Your task to perform on an android device: see sites visited before in the chrome app Image 0: 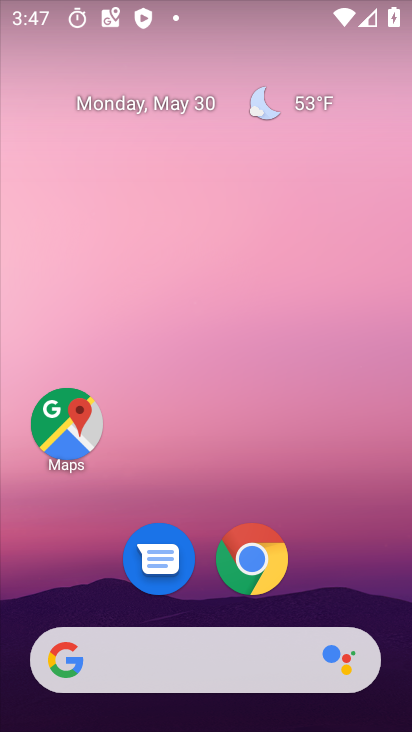
Step 0: click (259, 551)
Your task to perform on an android device: see sites visited before in the chrome app Image 1: 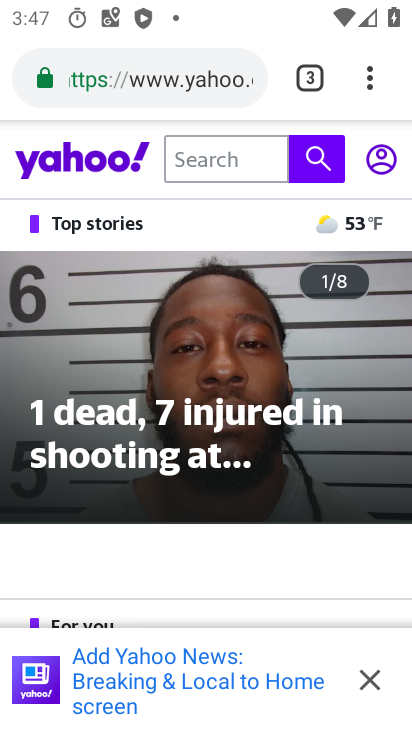
Step 1: click (372, 81)
Your task to perform on an android device: see sites visited before in the chrome app Image 2: 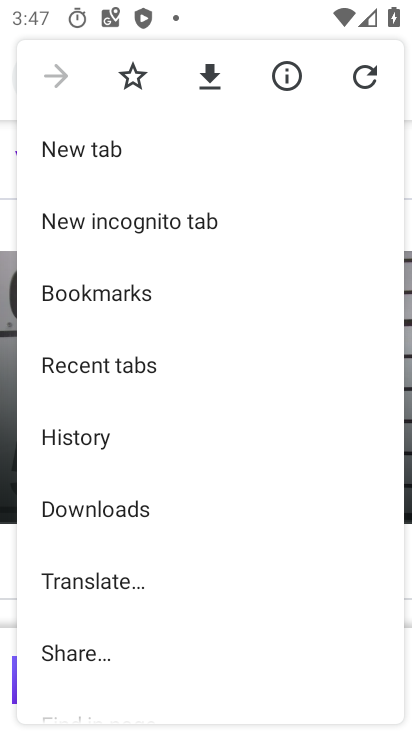
Step 2: drag from (103, 637) to (123, 282)
Your task to perform on an android device: see sites visited before in the chrome app Image 3: 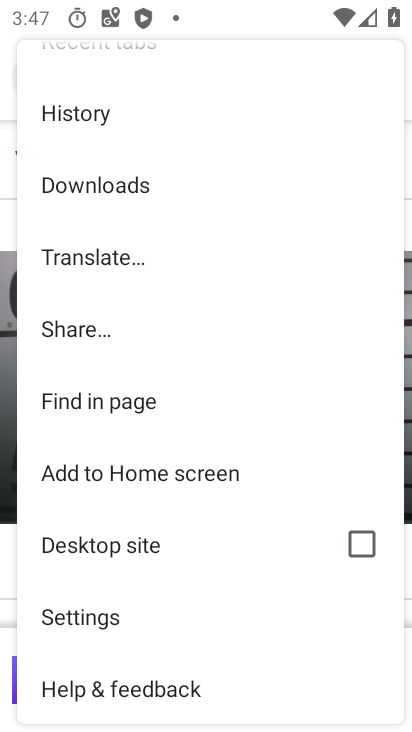
Step 3: click (84, 112)
Your task to perform on an android device: see sites visited before in the chrome app Image 4: 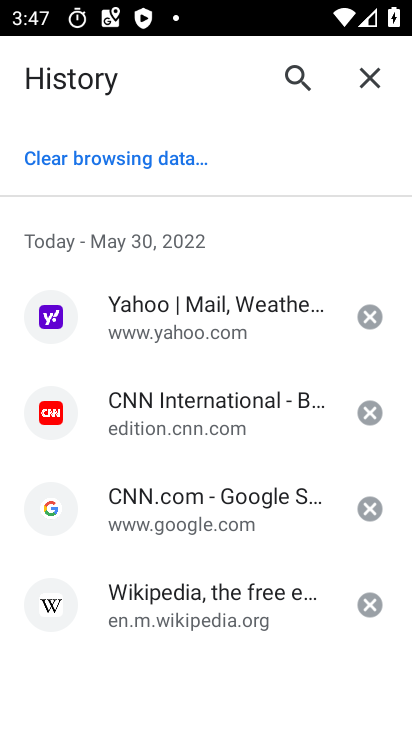
Step 4: task complete